Your task to perform on an android device: Open Google Chrome and click the shortcut for Amazon.com Image 0: 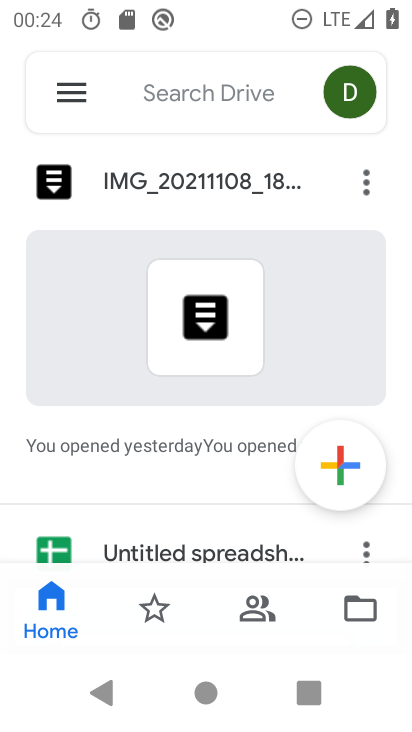
Step 0: press home button
Your task to perform on an android device: Open Google Chrome and click the shortcut for Amazon.com Image 1: 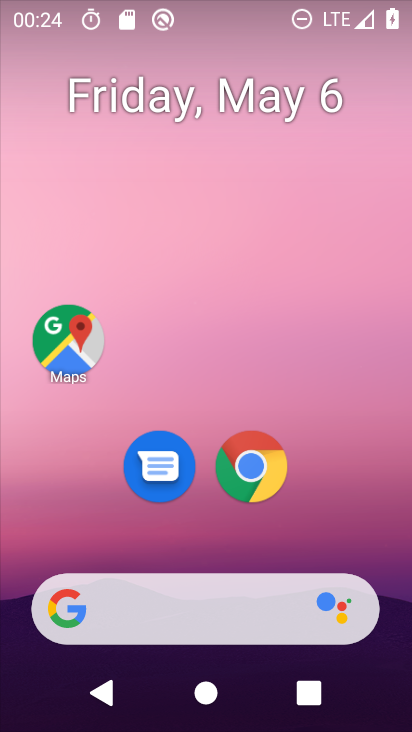
Step 1: click (253, 459)
Your task to perform on an android device: Open Google Chrome and click the shortcut for Amazon.com Image 2: 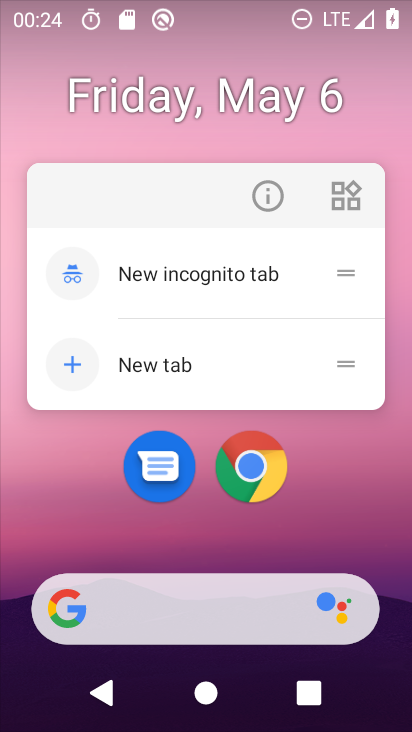
Step 2: click (255, 468)
Your task to perform on an android device: Open Google Chrome and click the shortcut for Amazon.com Image 3: 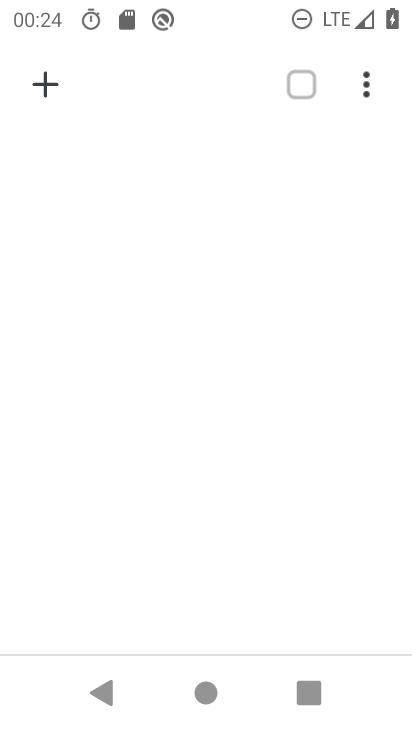
Step 3: click (48, 82)
Your task to perform on an android device: Open Google Chrome and click the shortcut for Amazon.com Image 4: 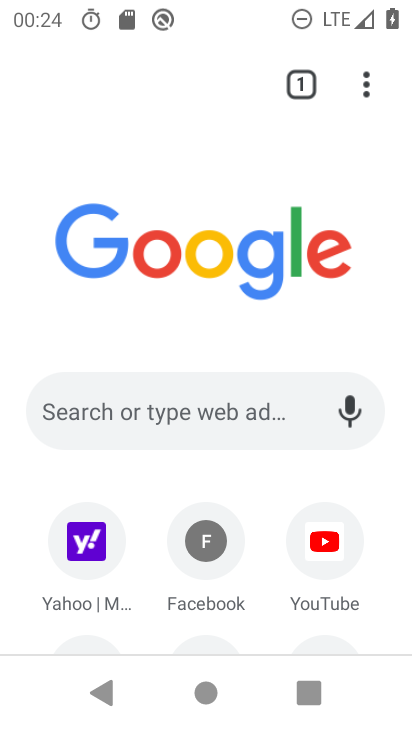
Step 4: drag from (229, 621) to (265, 350)
Your task to perform on an android device: Open Google Chrome and click the shortcut for Amazon.com Image 5: 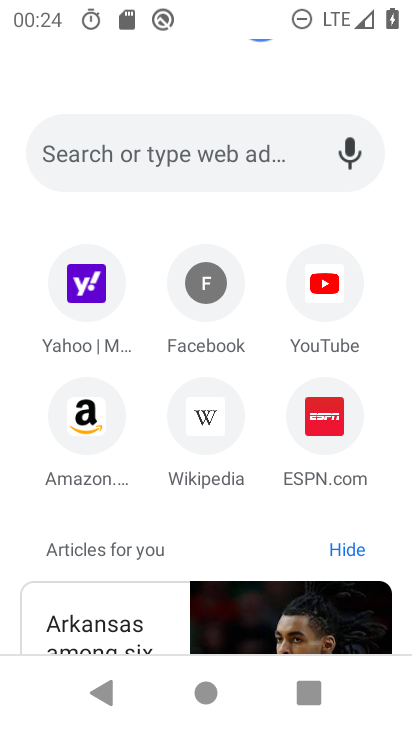
Step 5: click (96, 432)
Your task to perform on an android device: Open Google Chrome and click the shortcut for Amazon.com Image 6: 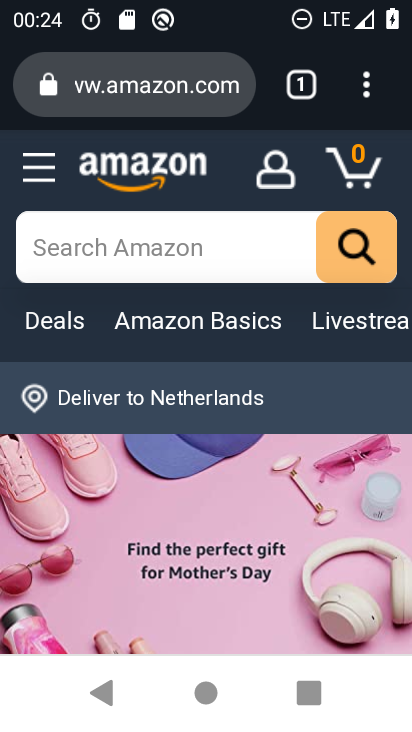
Step 6: task complete